Your task to perform on an android device: Open Android settings Image 0: 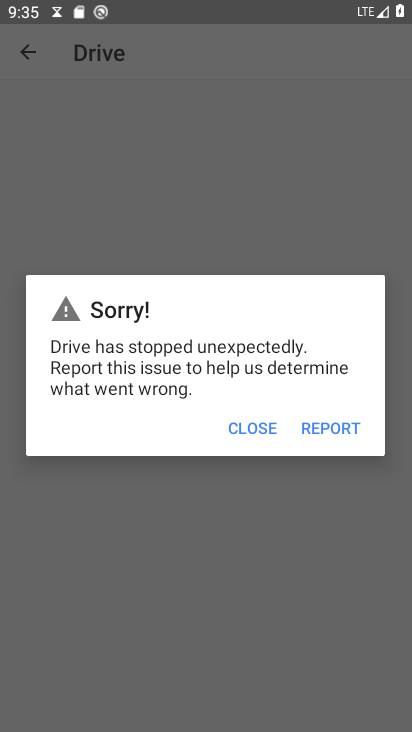
Step 0: press home button
Your task to perform on an android device: Open Android settings Image 1: 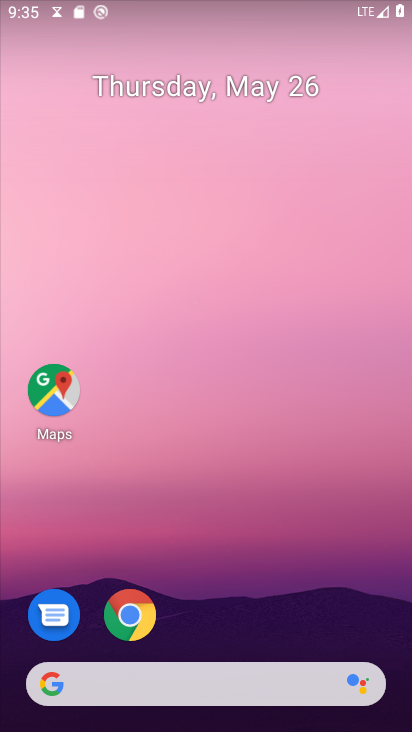
Step 1: drag from (210, 624) to (208, 311)
Your task to perform on an android device: Open Android settings Image 2: 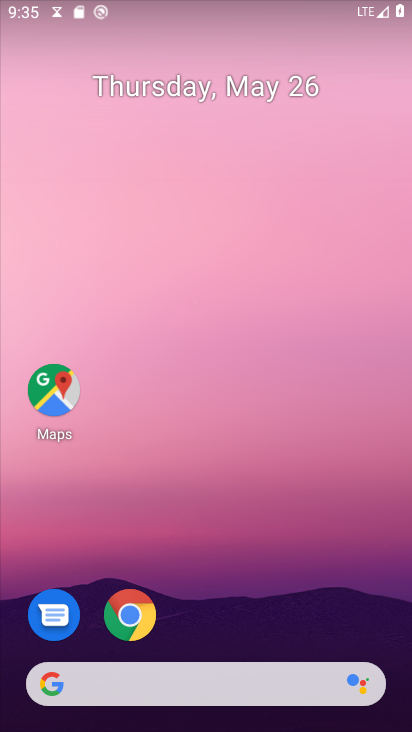
Step 2: drag from (221, 624) to (265, 349)
Your task to perform on an android device: Open Android settings Image 3: 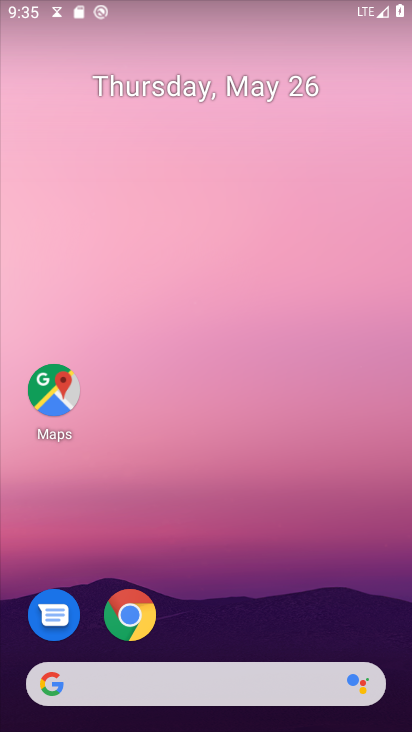
Step 3: drag from (241, 628) to (283, 241)
Your task to perform on an android device: Open Android settings Image 4: 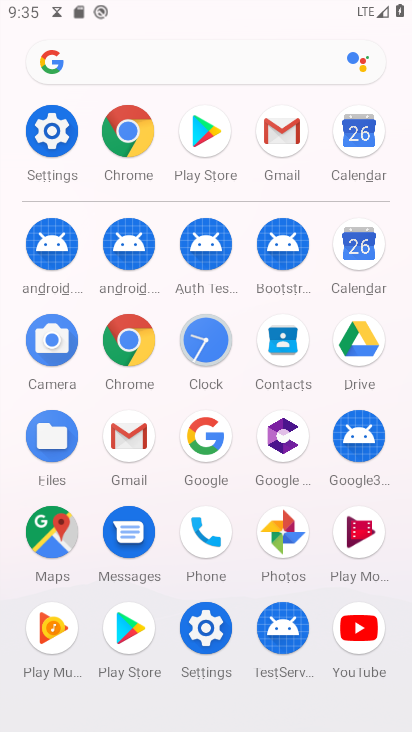
Step 4: click (43, 124)
Your task to perform on an android device: Open Android settings Image 5: 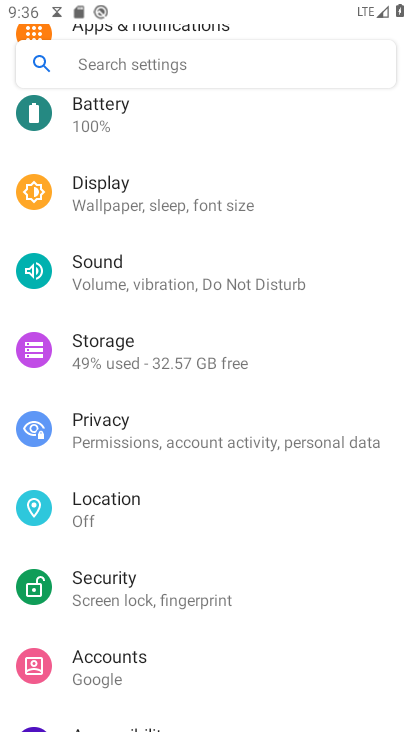
Step 5: task complete